Your task to perform on an android device: change notifications settings Image 0: 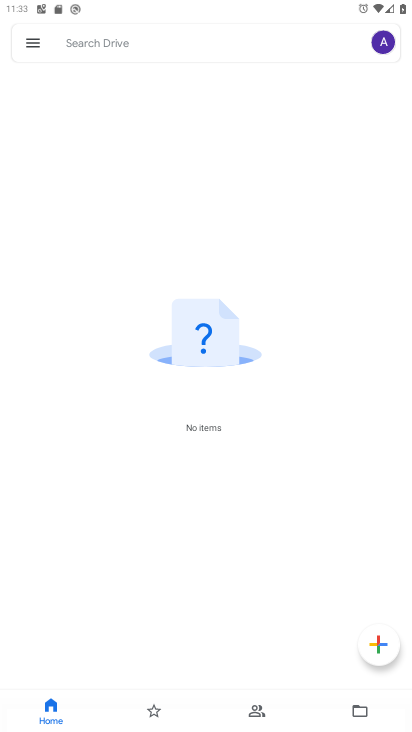
Step 0: press home button
Your task to perform on an android device: change notifications settings Image 1: 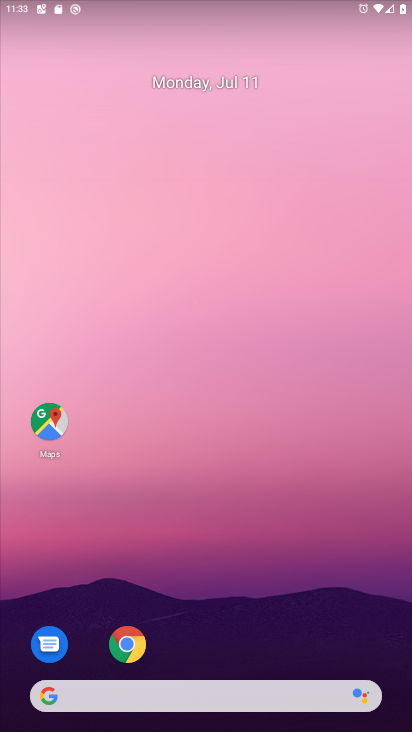
Step 1: drag from (276, 588) to (290, 128)
Your task to perform on an android device: change notifications settings Image 2: 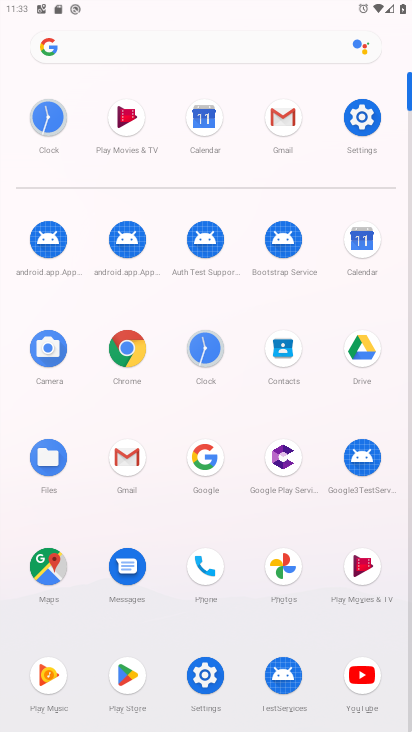
Step 2: click (356, 105)
Your task to perform on an android device: change notifications settings Image 3: 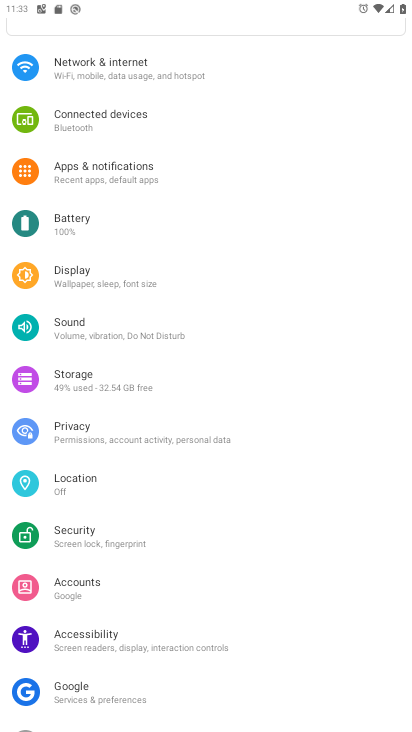
Step 3: click (98, 162)
Your task to perform on an android device: change notifications settings Image 4: 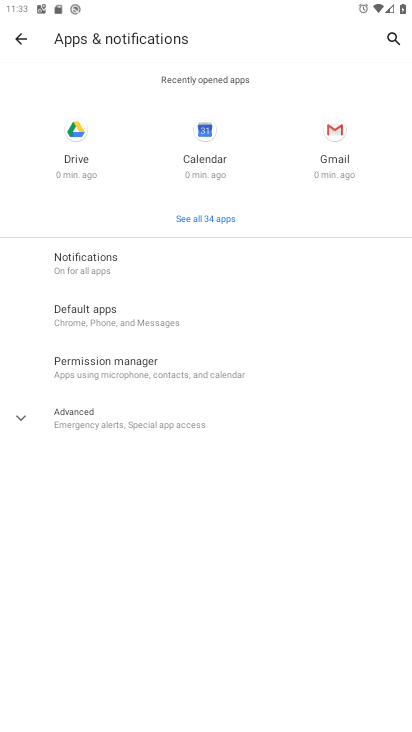
Step 4: click (109, 264)
Your task to perform on an android device: change notifications settings Image 5: 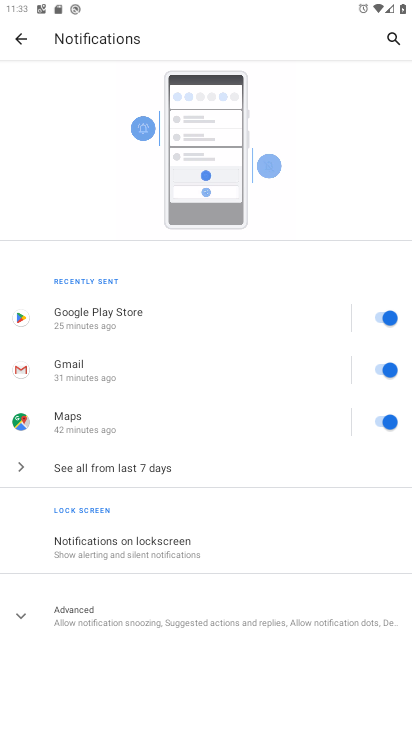
Step 5: click (226, 469)
Your task to perform on an android device: change notifications settings Image 6: 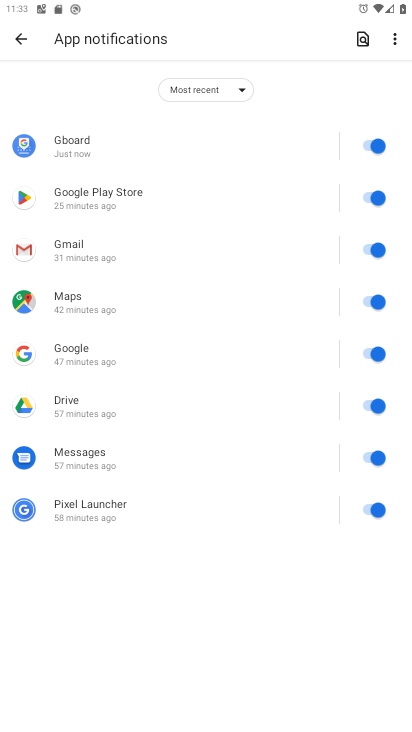
Step 6: click (370, 148)
Your task to perform on an android device: change notifications settings Image 7: 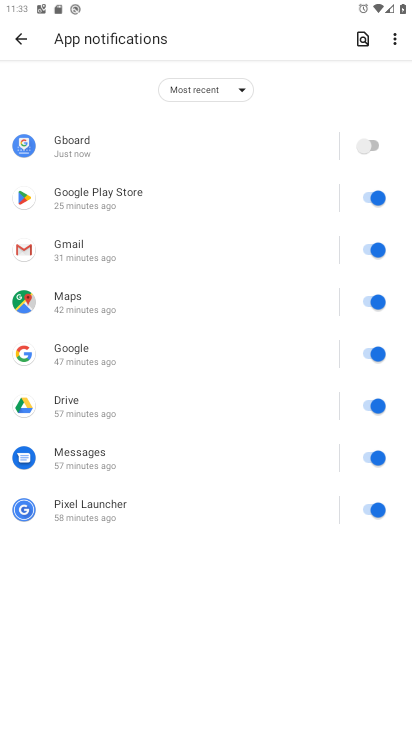
Step 7: click (368, 204)
Your task to perform on an android device: change notifications settings Image 8: 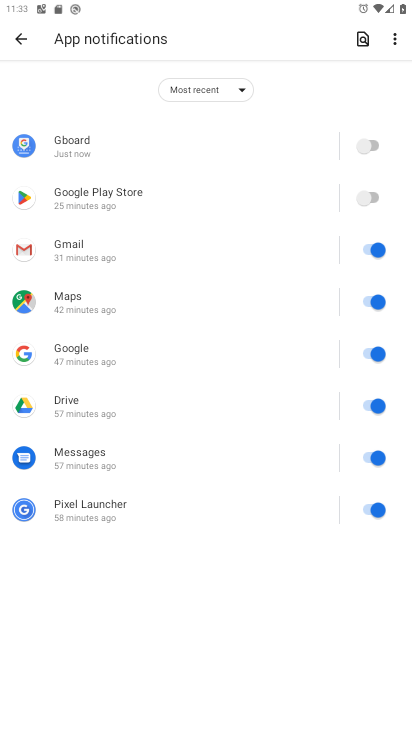
Step 8: click (369, 248)
Your task to perform on an android device: change notifications settings Image 9: 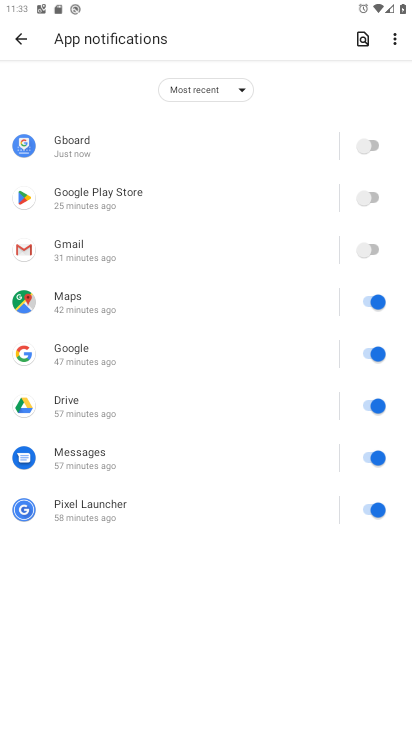
Step 9: click (369, 300)
Your task to perform on an android device: change notifications settings Image 10: 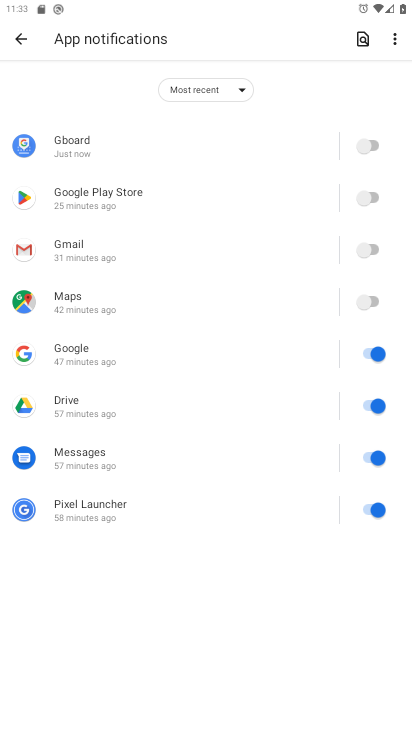
Step 10: click (374, 354)
Your task to perform on an android device: change notifications settings Image 11: 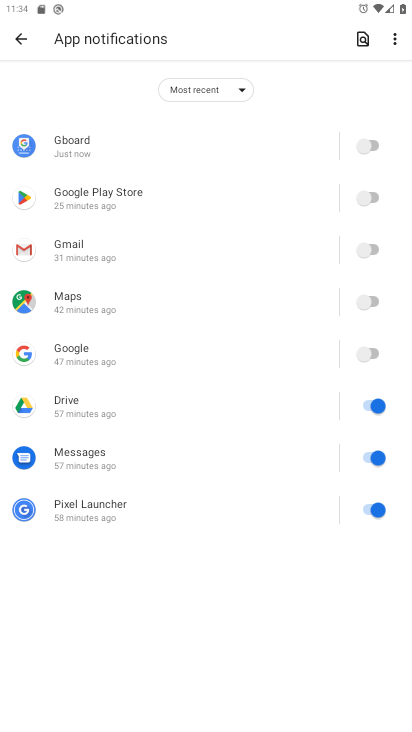
Step 11: click (375, 404)
Your task to perform on an android device: change notifications settings Image 12: 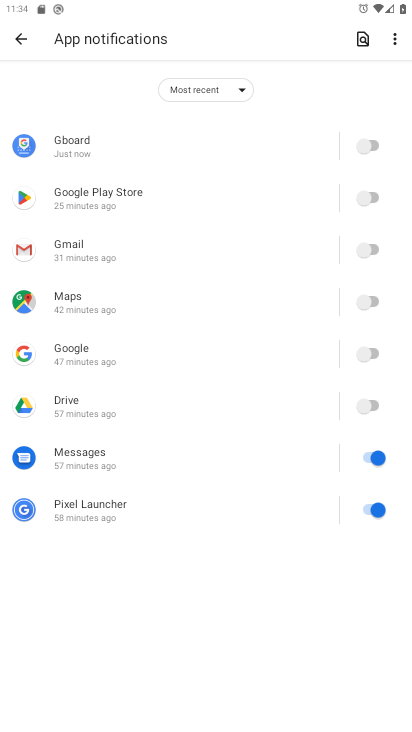
Step 12: click (378, 454)
Your task to perform on an android device: change notifications settings Image 13: 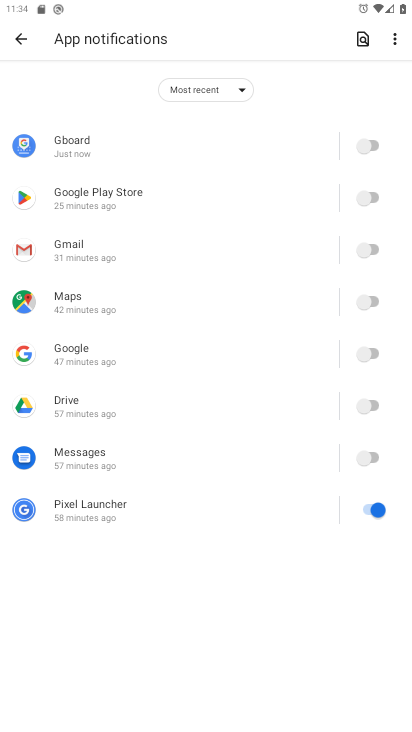
Step 13: click (378, 507)
Your task to perform on an android device: change notifications settings Image 14: 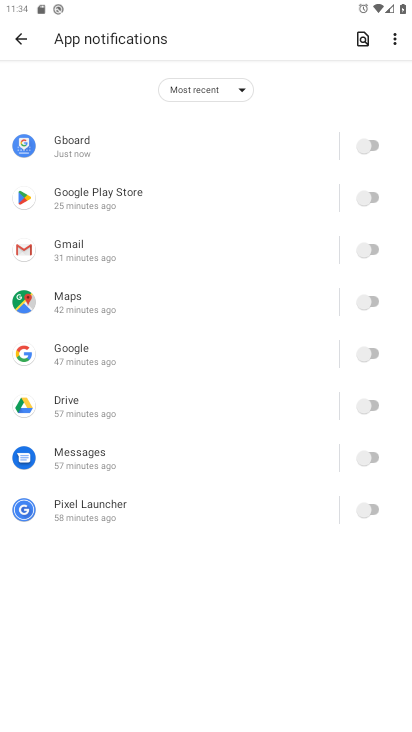
Step 14: click (24, 44)
Your task to perform on an android device: change notifications settings Image 15: 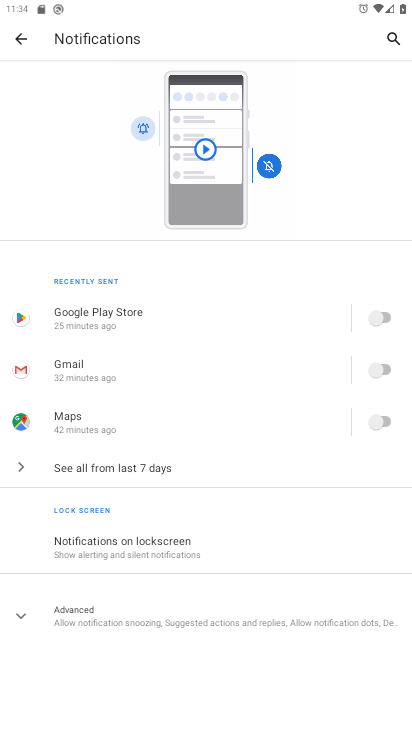
Step 15: click (212, 561)
Your task to perform on an android device: change notifications settings Image 16: 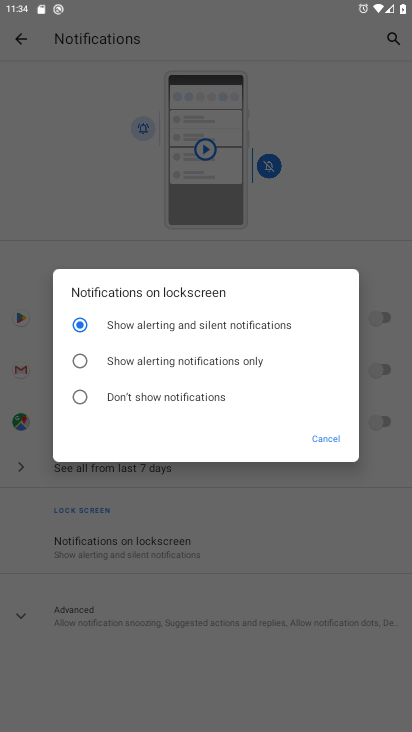
Step 16: click (216, 359)
Your task to perform on an android device: change notifications settings Image 17: 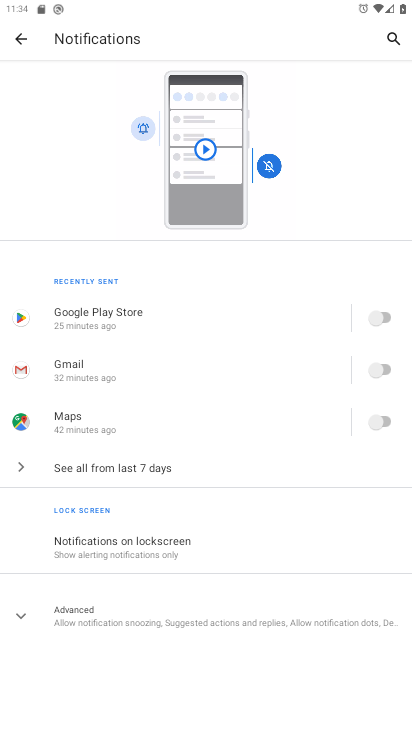
Step 17: click (155, 615)
Your task to perform on an android device: change notifications settings Image 18: 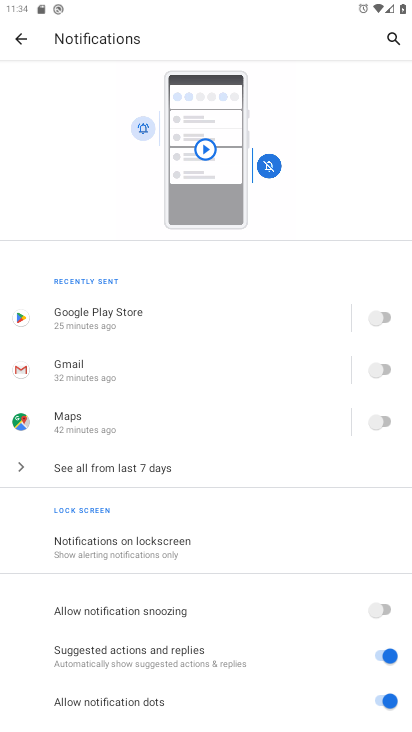
Step 18: click (384, 604)
Your task to perform on an android device: change notifications settings Image 19: 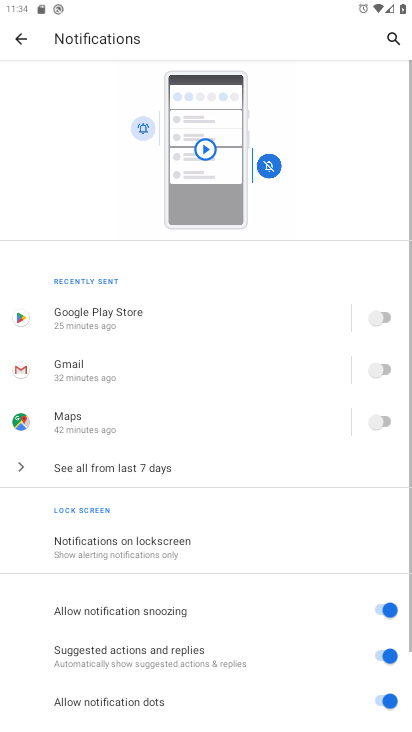
Step 19: click (385, 653)
Your task to perform on an android device: change notifications settings Image 20: 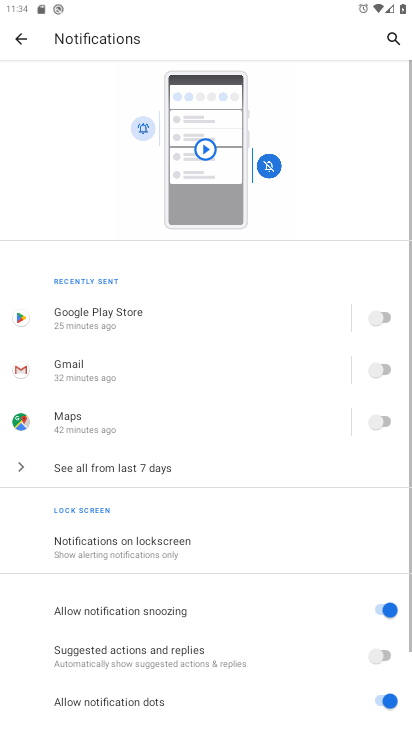
Step 20: click (385, 695)
Your task to perform on an android device: change notifications settings Image 21: 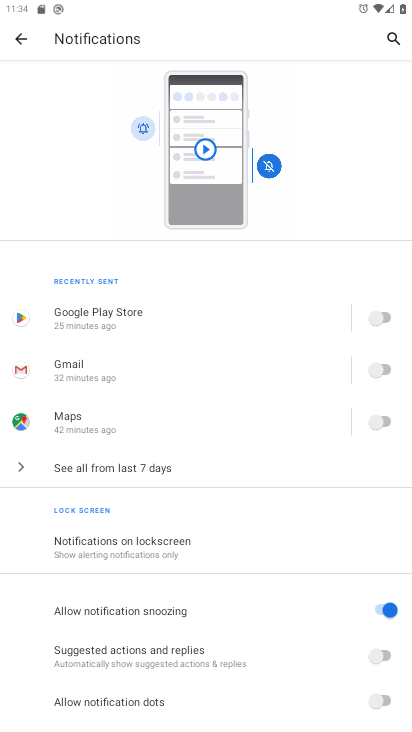
Step 21: task complete